Your task to perform on an android device: install app "LinkedIn" Image 0: 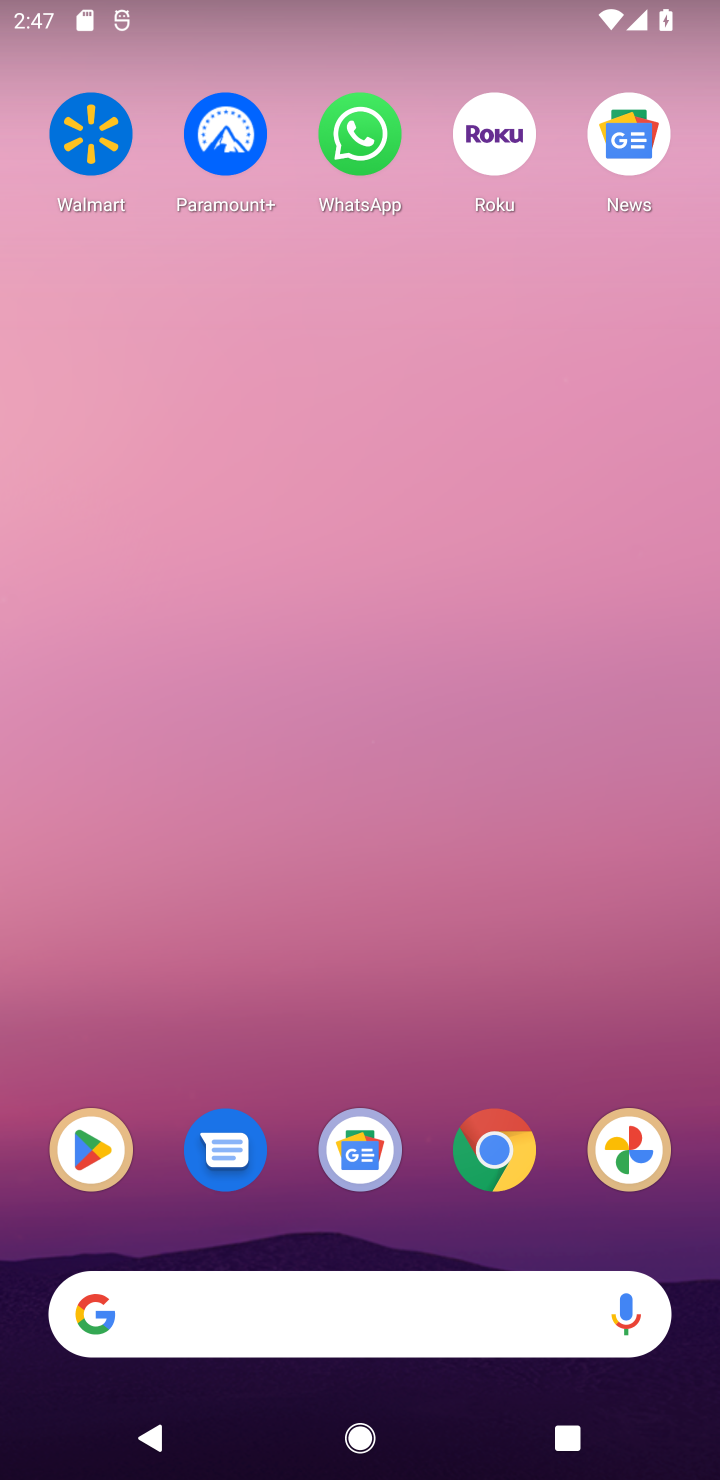
Step 0: drag from (418, 1220) to (365, 163)
Your task to perform on an android device: install app "LinkedIn" Image 1: 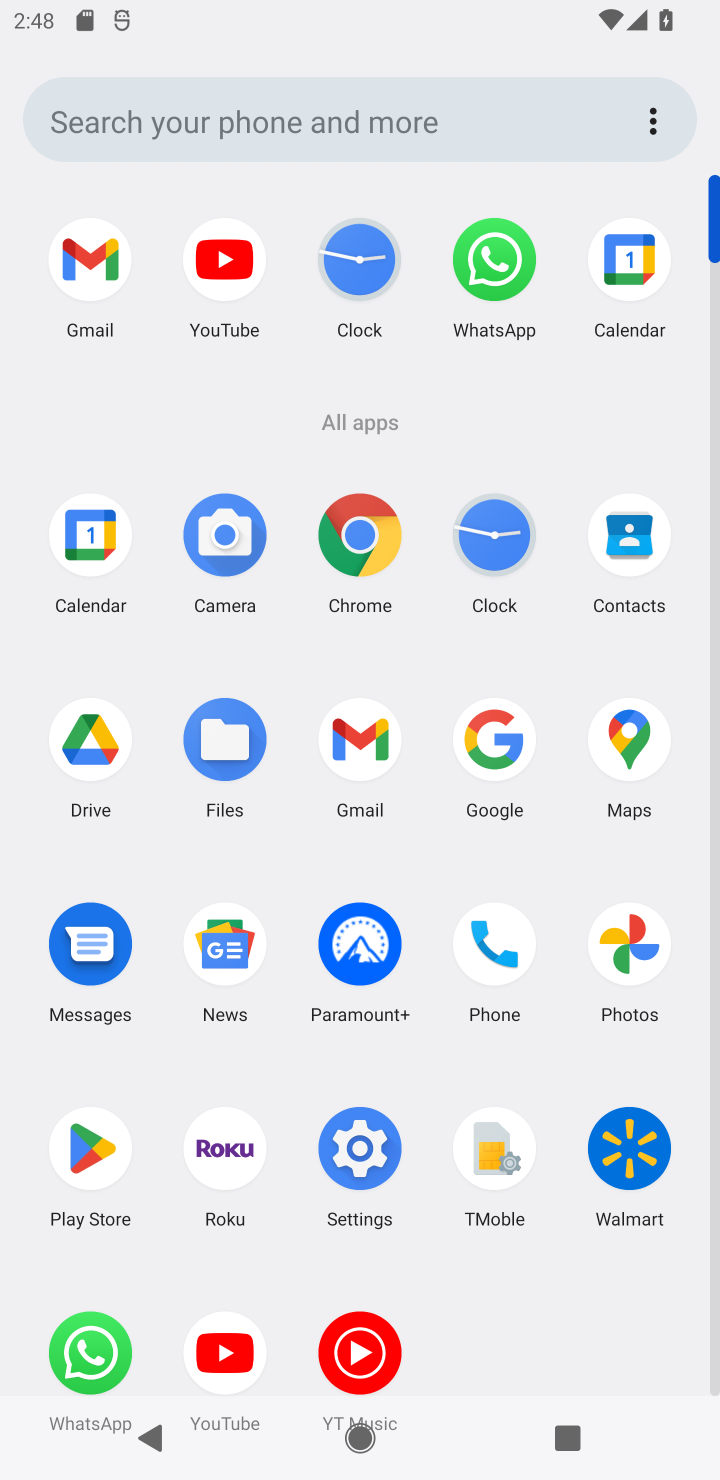
Step 1: click (123, 1173)
Your task to perform on an android device: install app "LinkedIn" Image 2: 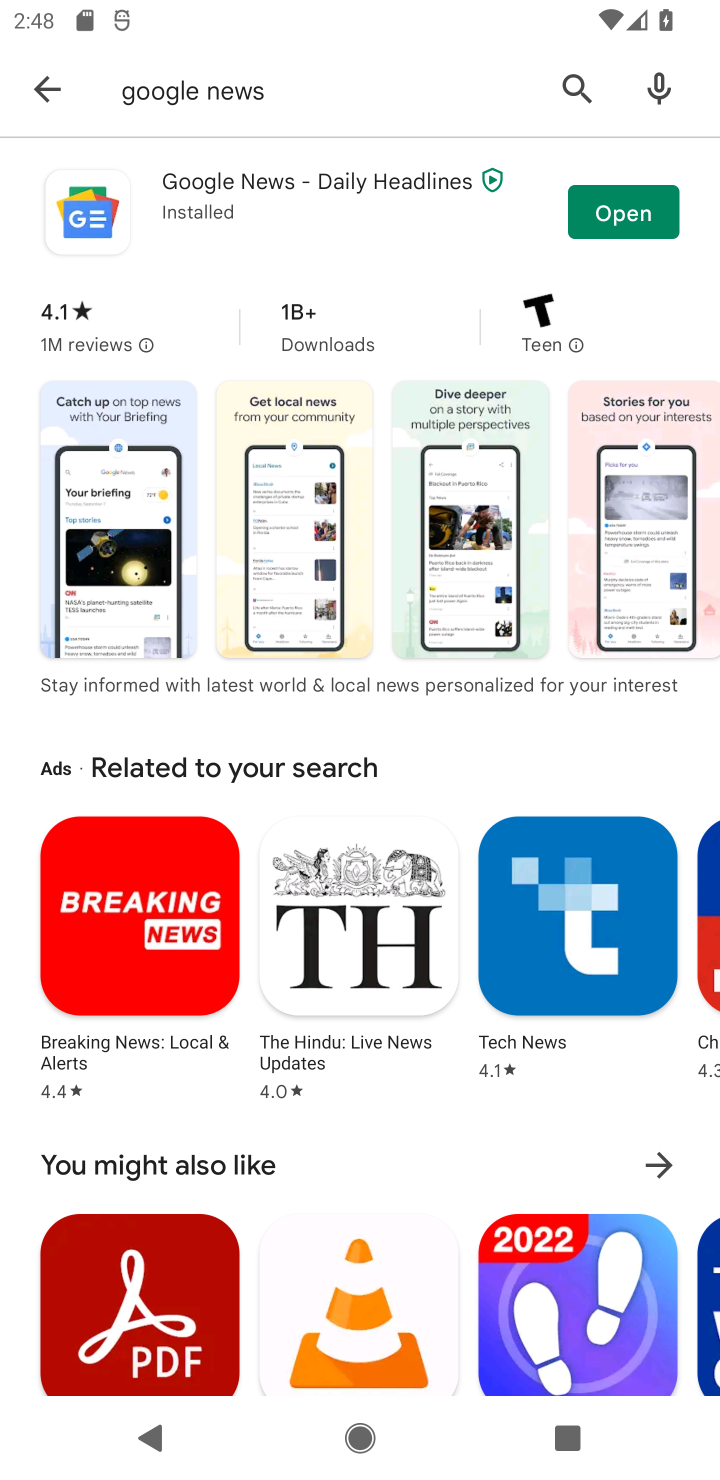
Step 2: click (338, 80)
Your task to perform on an android device: install app "LinkedIn" Image 3: 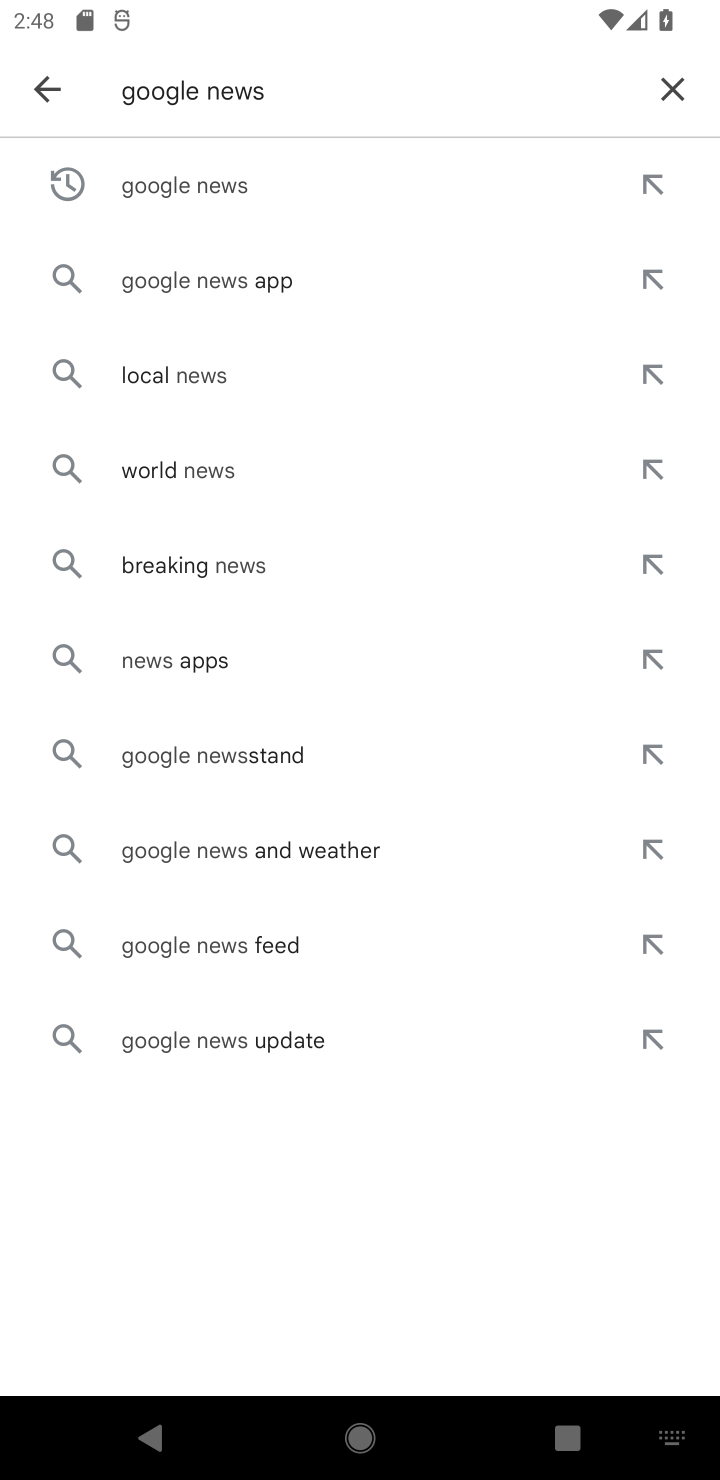
Step 3: click (580, 93)
Your task to perform on an android device: install app "LinkedIn" Image 4: 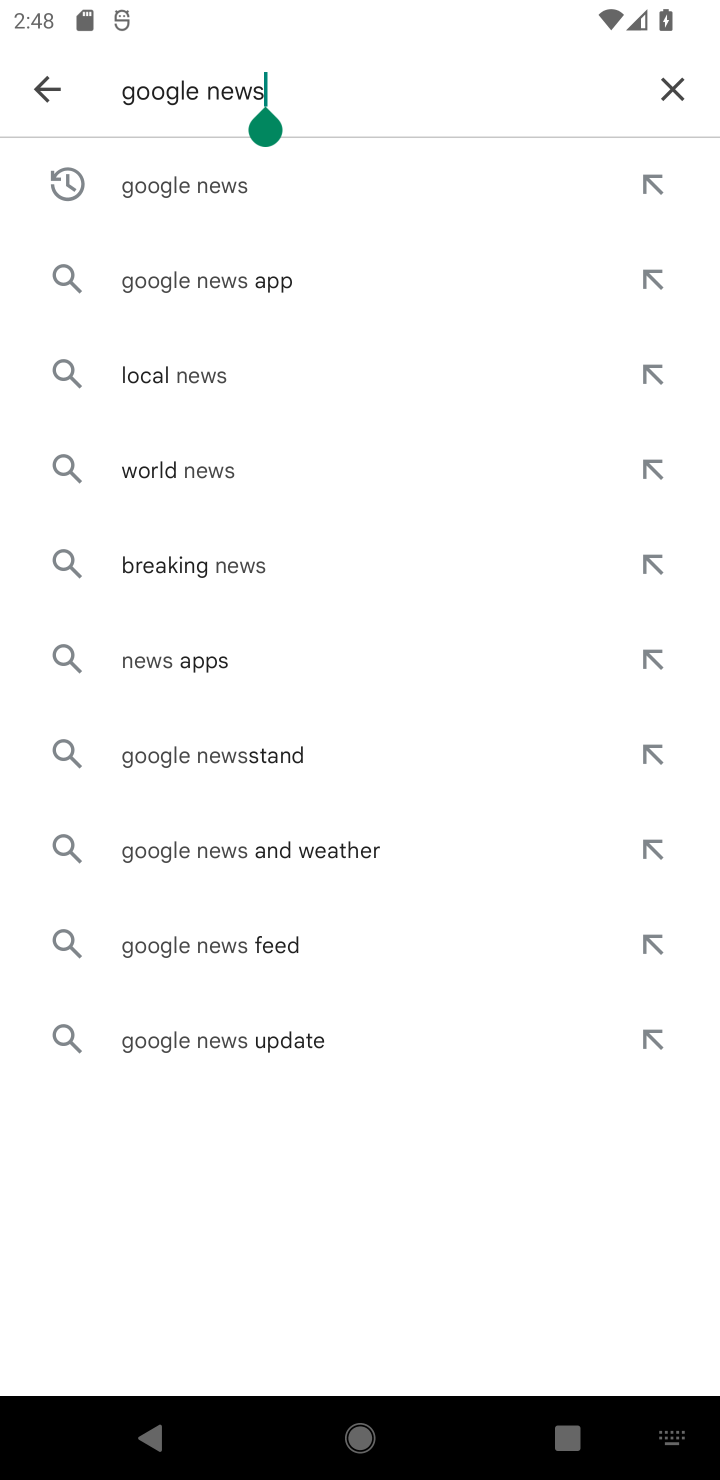
Step 4: click (652, 93)
Your task to perform on an android device: install app "LinkedIn" Image 5: 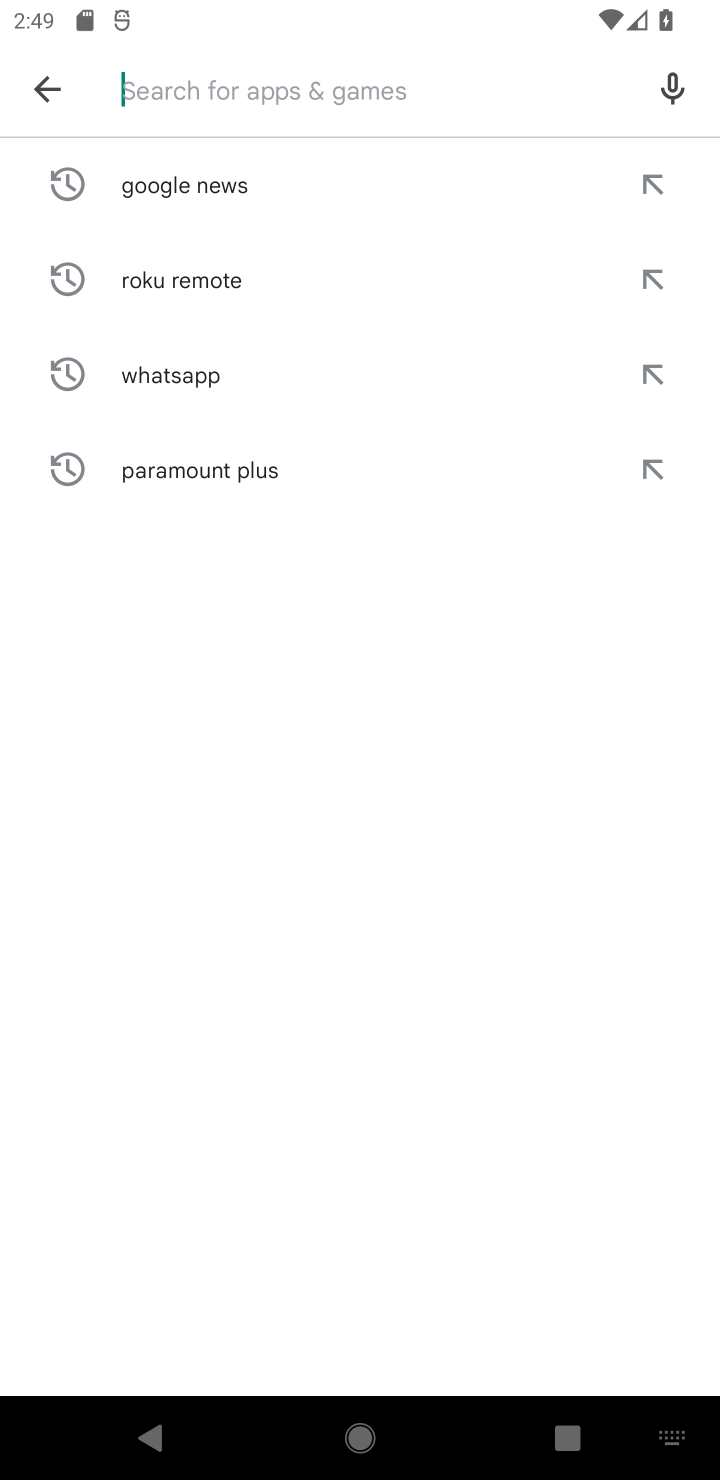
Step 5: type "linkedin"
Your task to perform on an android device: install app "LinkedIn" Image 6: 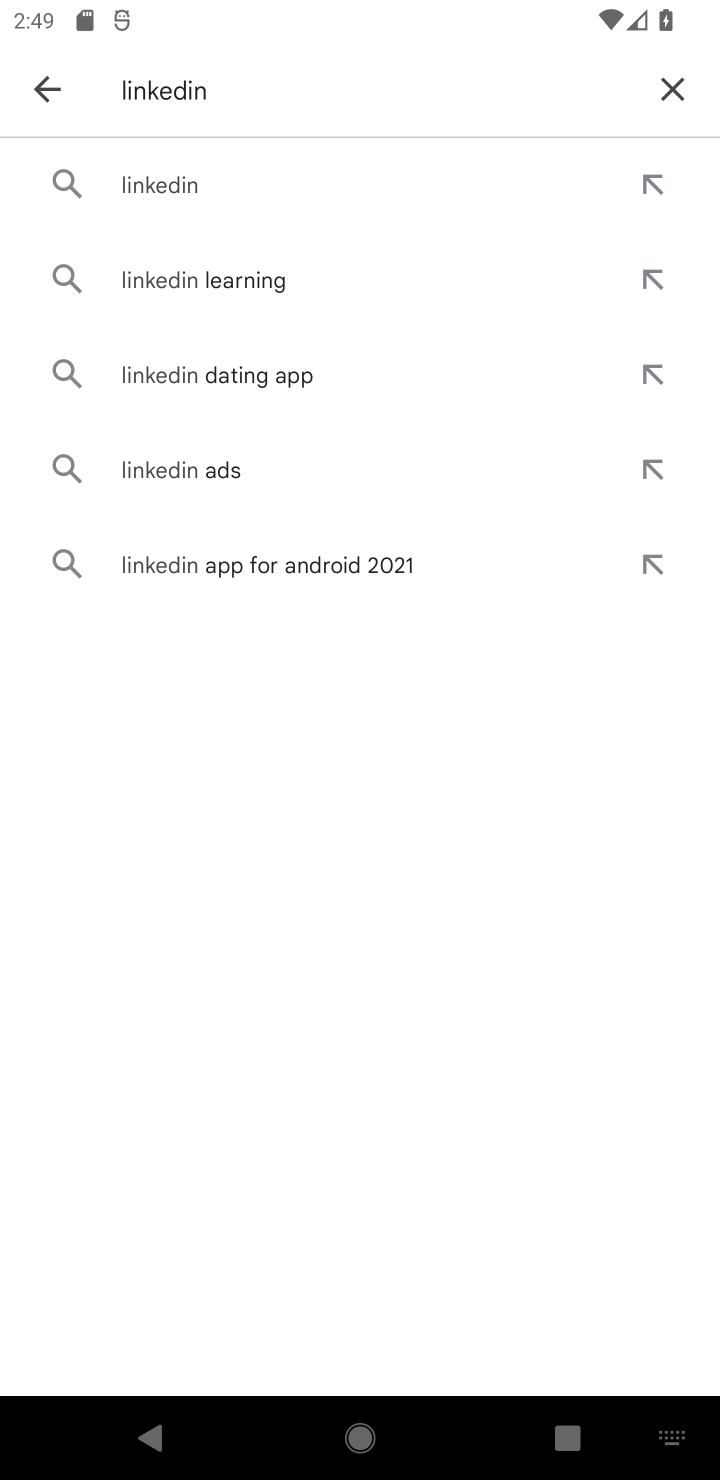
Step 6: click (353, 161)
Your task to perform on an android device: install app "LinkedIn" Image 7: 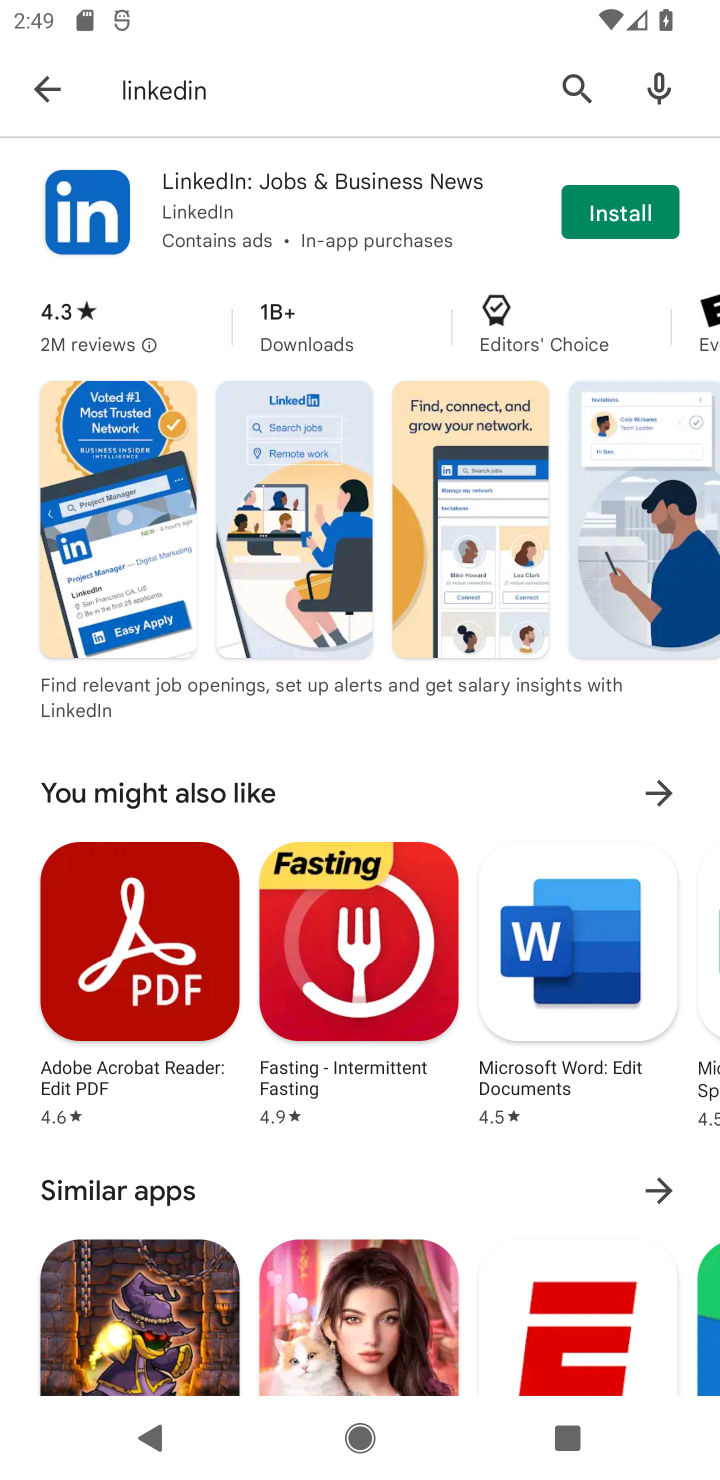
Step 7: click (641, 209)
Your task to perform on an android device: install app "LinkedIn" Image 8: 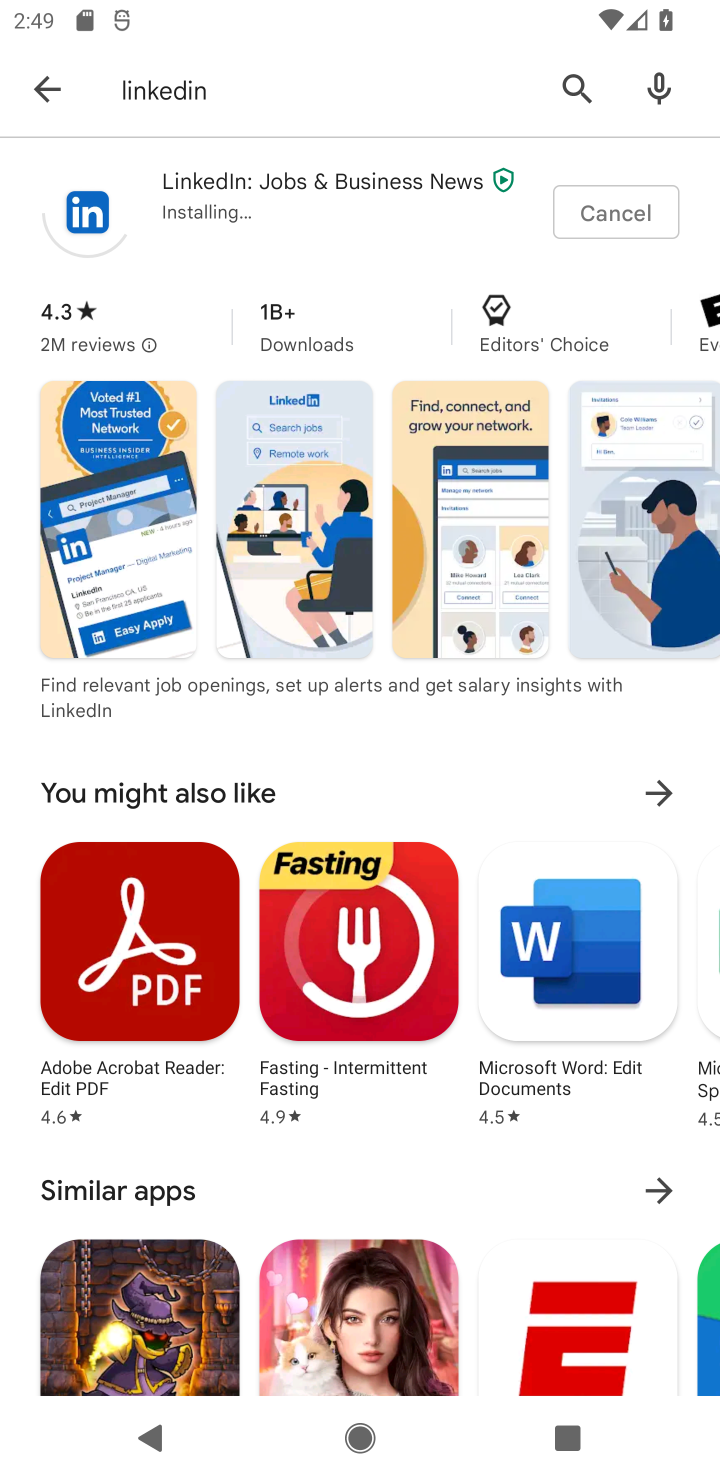
Step 8: task complete